Your task to perform on an android device: When is my next meeting? Image 0: 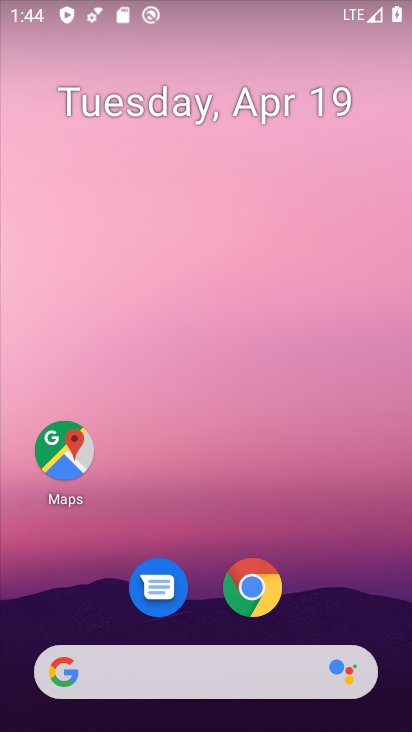
Step 0: drag from (350, 675) to (250, 237)
Your task to perform on an android device: When is my next meeting? Image 1: 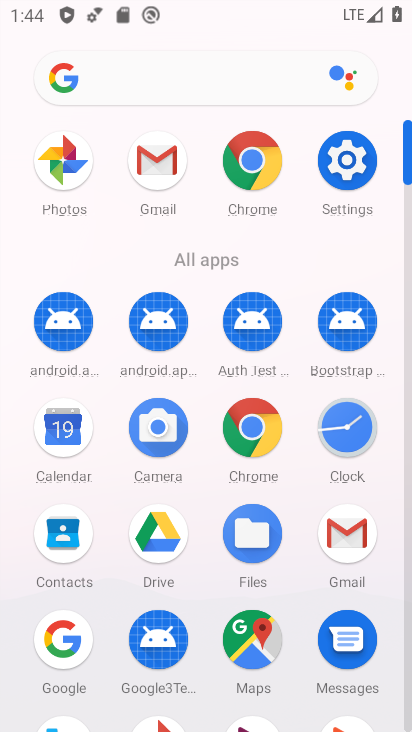
Step 1: click (57, 434)
Your task to perform on an android device: When is my next meeting? Image 2: 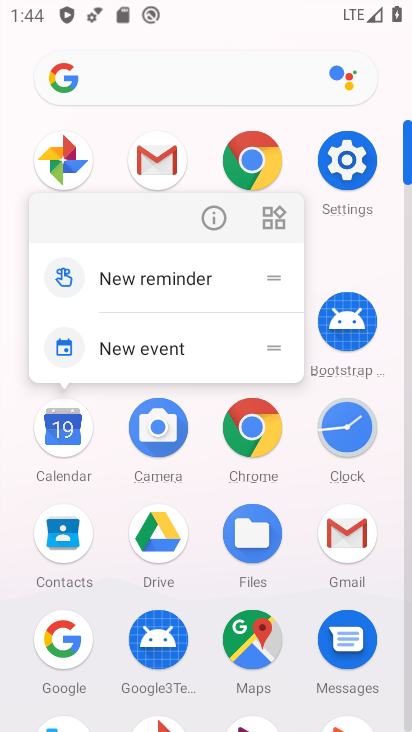
Step 2: click (60, 433)
Your task to perform on an android device: When is my next meeting? Image 3: 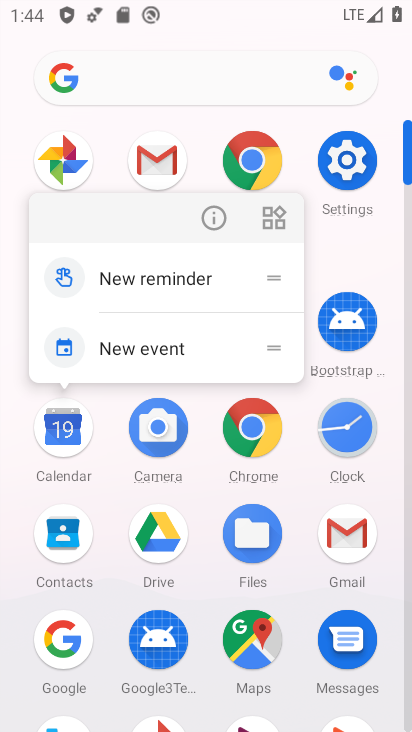
Step 3: click (58, 440)
Your task to perform on an android device: When is my next meeting? Image 4: 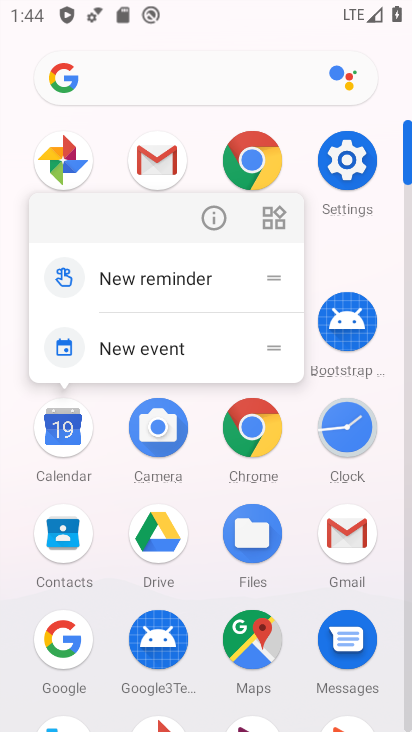
Step 4: click (54, 438)
Your task to perform on an android device: When is my next meeting? Image 5: 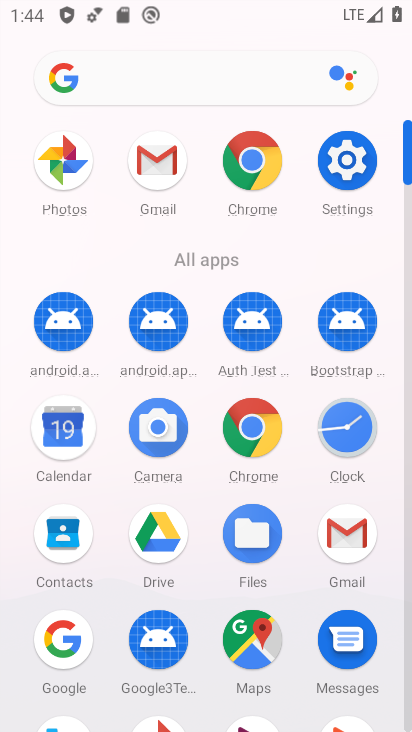
Step 5: click (56, 435)
Your task to perform on an android device: When is my next meeting? Image 6: 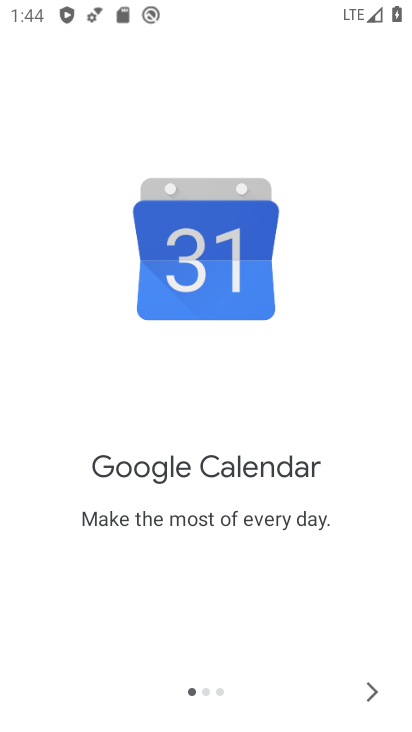
Step 6: click (367, 684)
Your task to perform on an android device: When is my next meeting? Image 7: 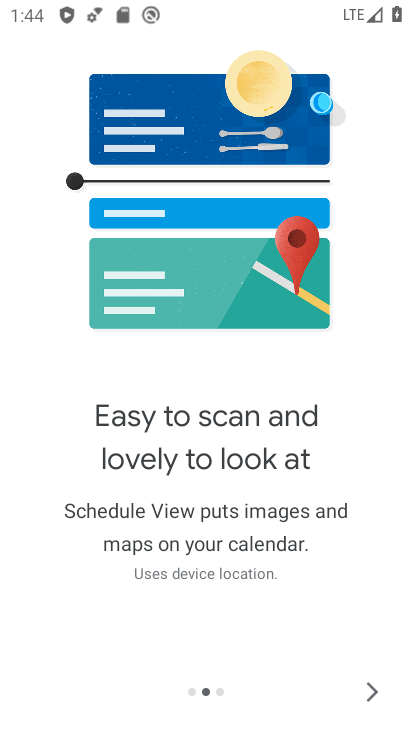
Step 7: click (366, 687)
Your task to perform on an android device: When is my next meeting? Image 8: 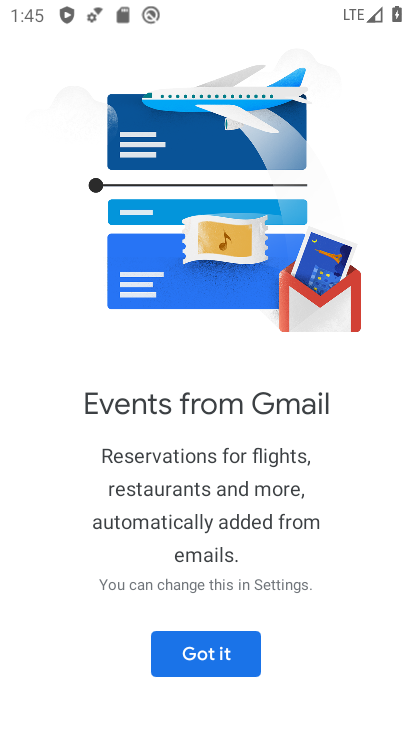
Step 8: click (194, 652)
Your task to perform on an android device: When is my next meeting? Image 9: 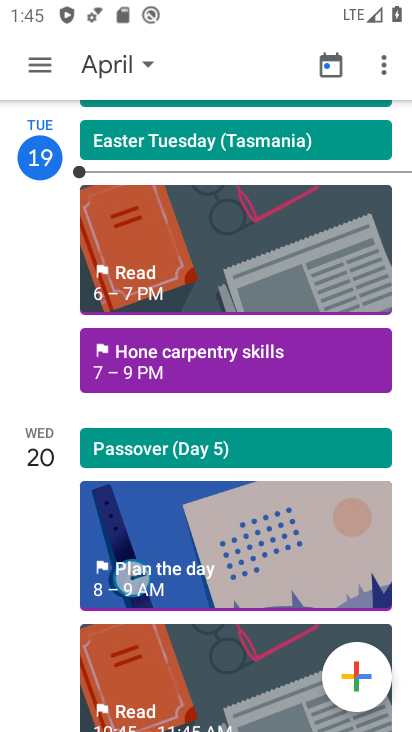
Step 9: click (35, 63)
Your task to perform on an android device: When is my next meeting? Image 10: 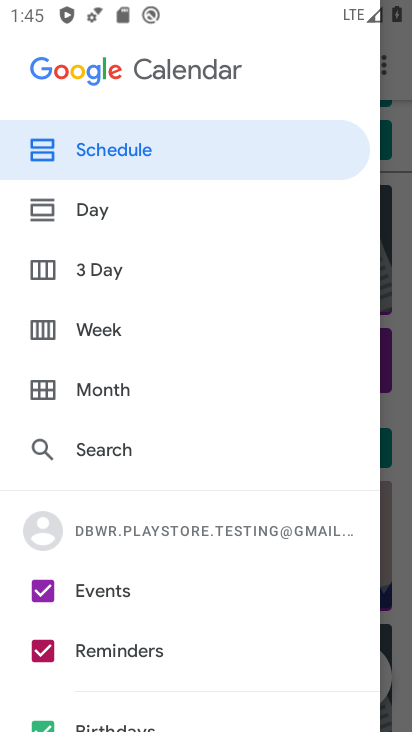
Step 10: click (186, 138)
Your task to perform on an android device: When is my next meeting? Image 11: 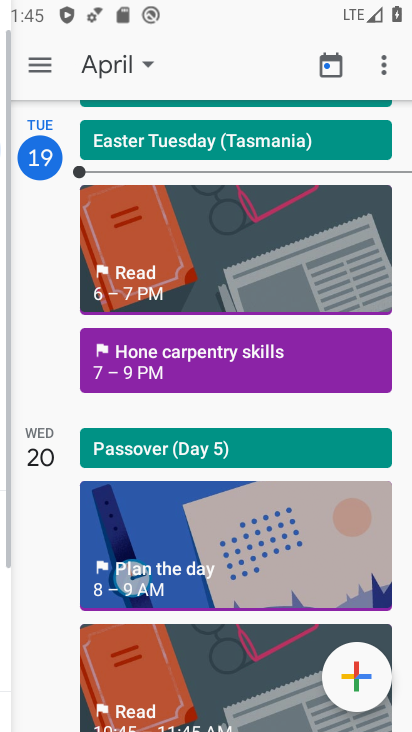
Step 11: drag from (172, 137) to (238, 233)
Your task to perform on an android device: When is my next meeting? Image 12: 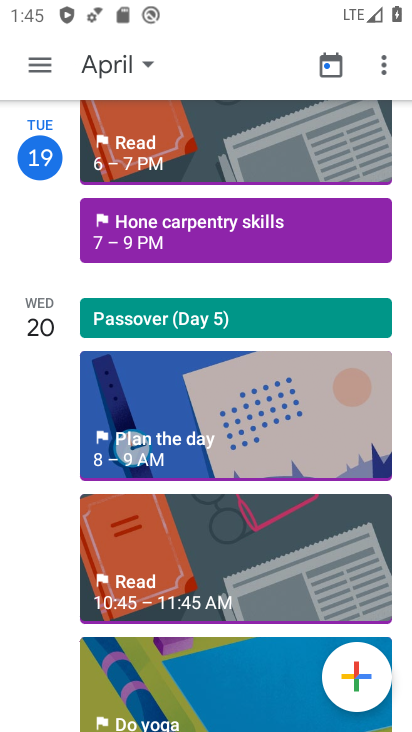
Step 12: drag from (231, 294) to (214, 235)
Your task to perform on an android device: When is my next meeting? Image 13: 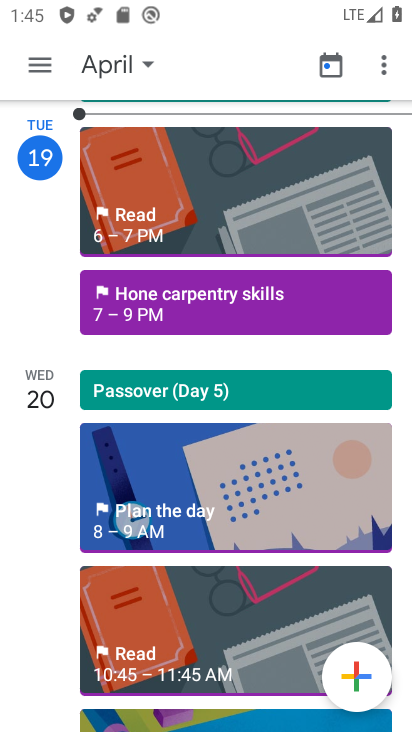
Step 13: drag from (185, 483) to (101, 199)
Your task to perform on an android device: When is my next meeting? Image 14: 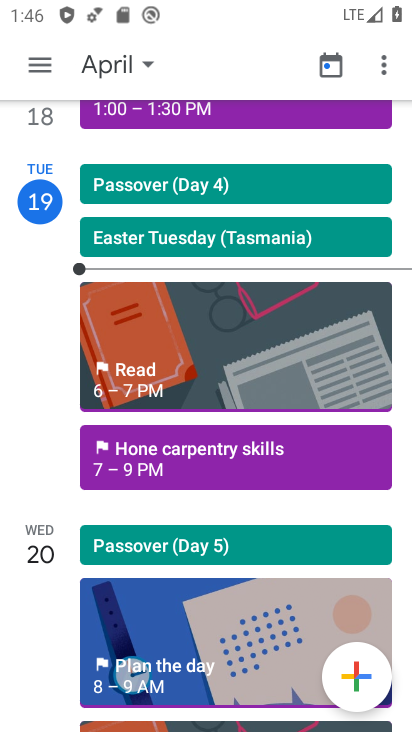
Step 14: drag from (180, 490) to (167, 201)
Your task to perform on an android device: When is my next meeting? Image 15: 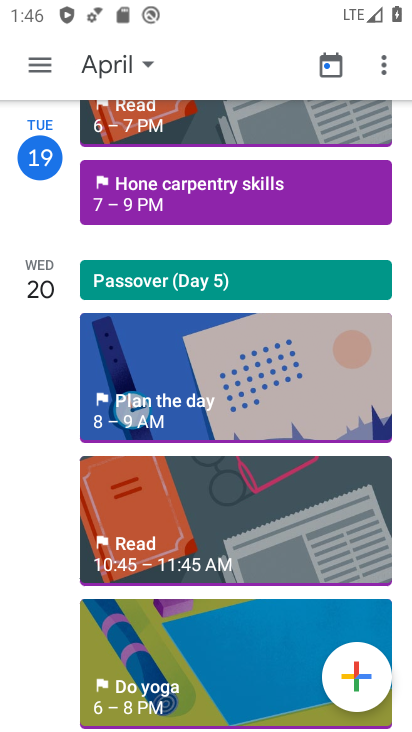
Step 15: drag from (252, 188) to (188, 219)
Your task to perform on an android device: When is my next meeting? Image 16: 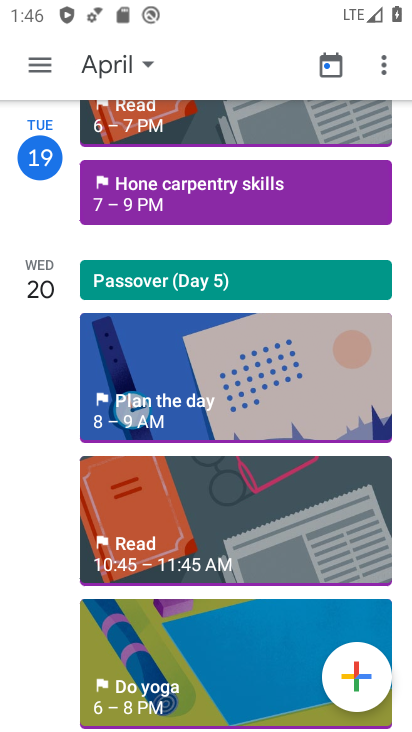
Step 16: drag from (230, 499) to (108, 197)
Your task to perform on an android device: When is my next meeting? Image 17: 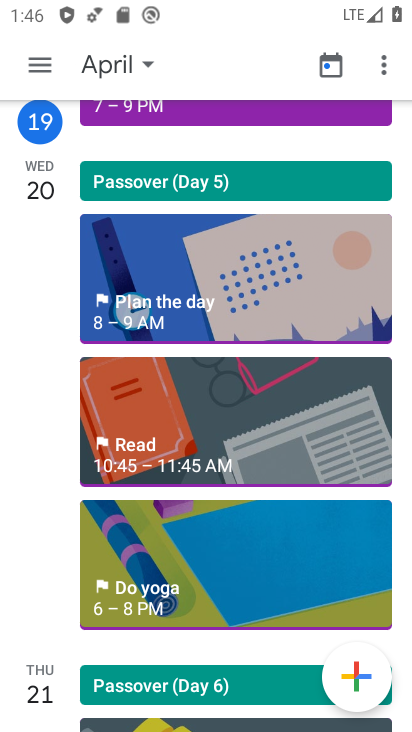
Step 17: drag from (230, 498) to (210, 146)
Your task to perform on an android device: When is my next meeting? Image 18: 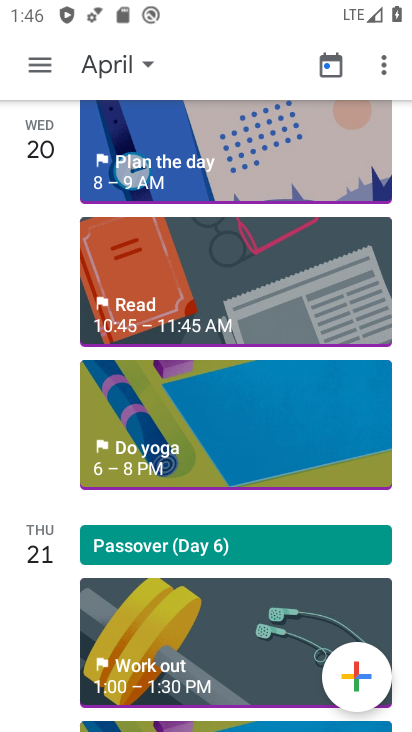
Step 18: drag from (256, 585) to (223, 194)
Your task to perform on an android device: When is my next meeting? Image 19: 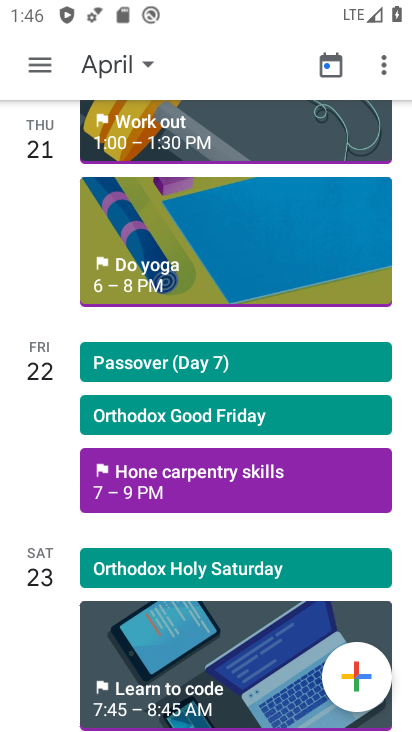
Step 19: drag from (230, 554) to (161, 243)
Your task to perform on an android device: When is my next meeting? Image 20: 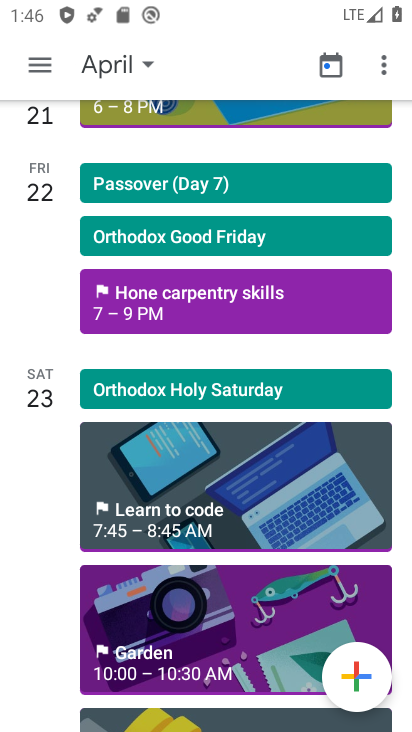
Step 20: click (57, 259)
Your task to perform on an android device: When is my next meeting? Image 21: 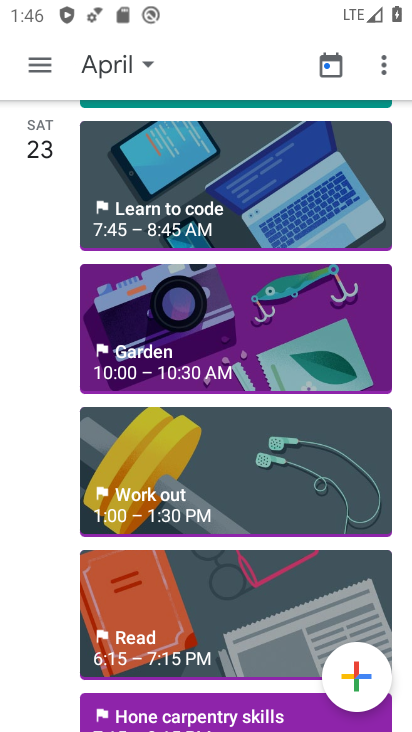
Step 21: click (192, 204)
Your task to perform on an android device: When is my next meeting? Image 22: 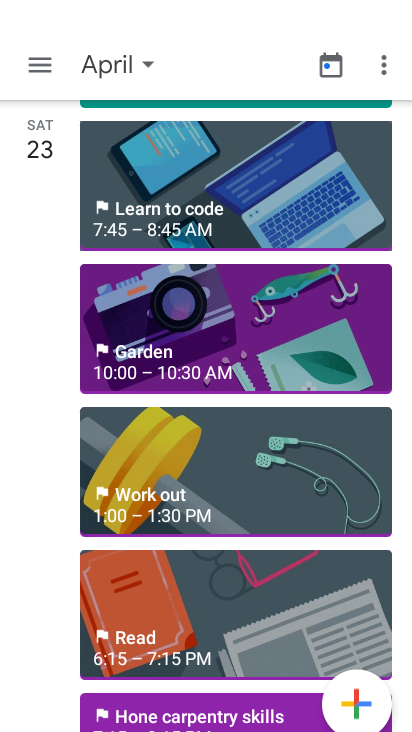
Step 22: drag from (169, 446) to (151, 391)
Your task to perform on an android device: When is my next meeting? Image 23: 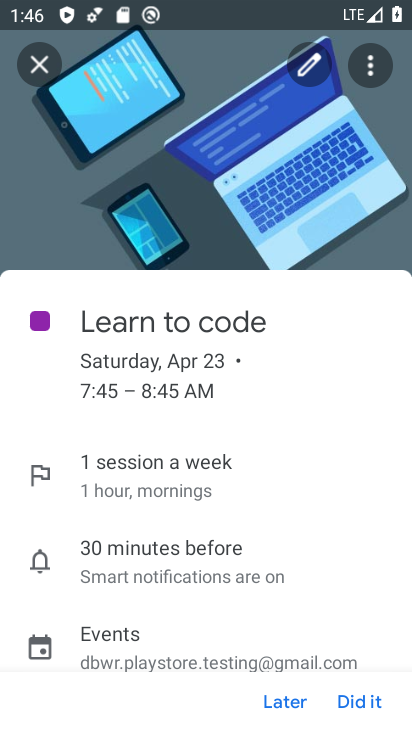
Step 23: click (353, 693)
Your task to perform on an android device: When is my next meeting? Image 24: 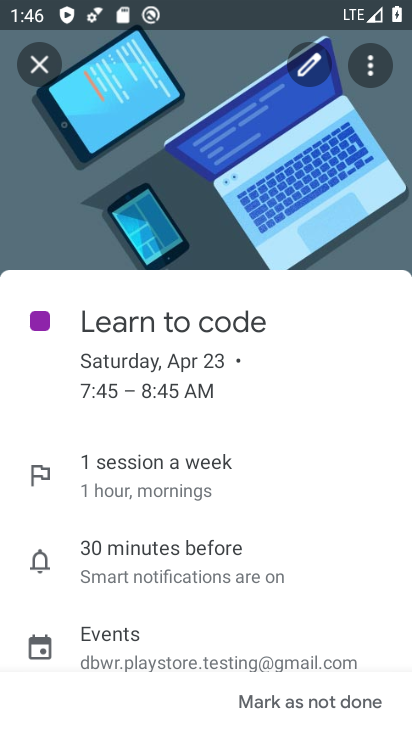
Step 24: click (36, 63)
Your task to perform on an android device: When is my next meeting? Image 25: 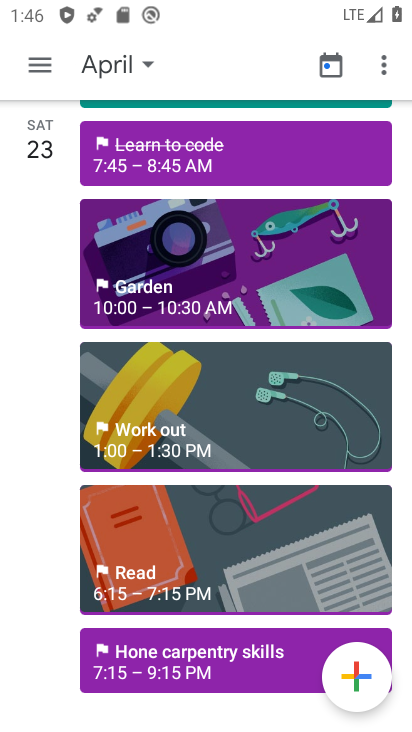
Step 25: click (42, 70)
Your task to perform on an android device: When is my next meeting? Image 26: 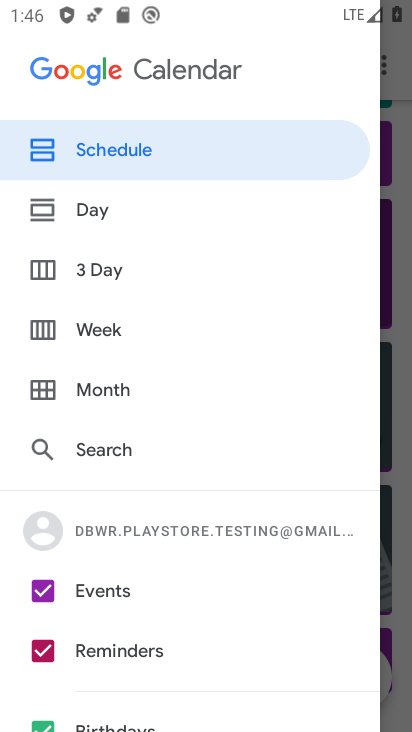
Step 26: click (82, 589)
Your task to perform on an android device: When is my next meeting? Image 27: 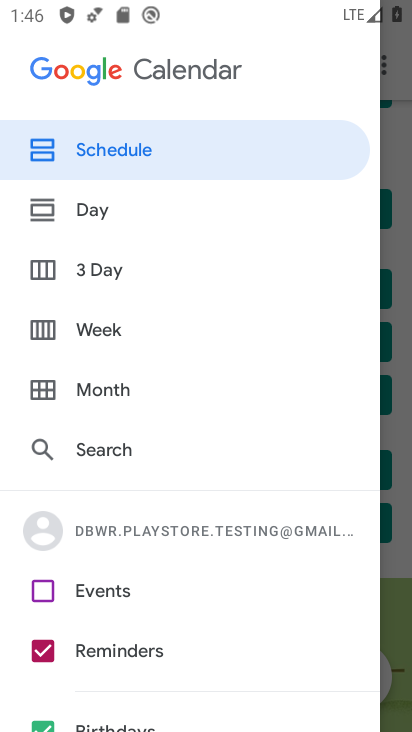
Step 27: click (43, 586)
Your task to perform on an android device: When is my next meeting? Image 28: 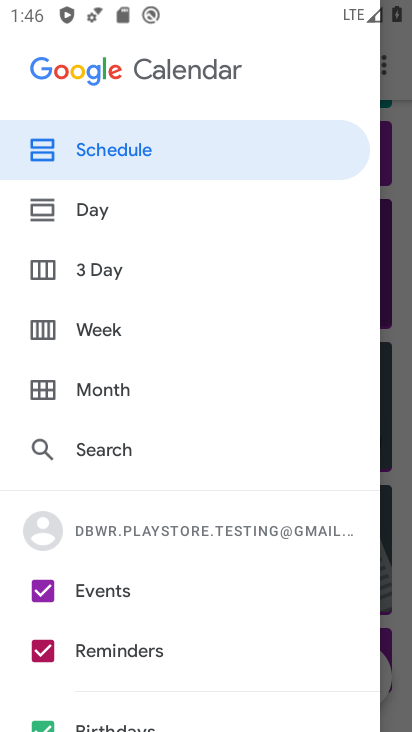
Step 28: drag from (225, 544) to (217, 97)
Your task to perform on an android device: When is my next meeting? Image 29: 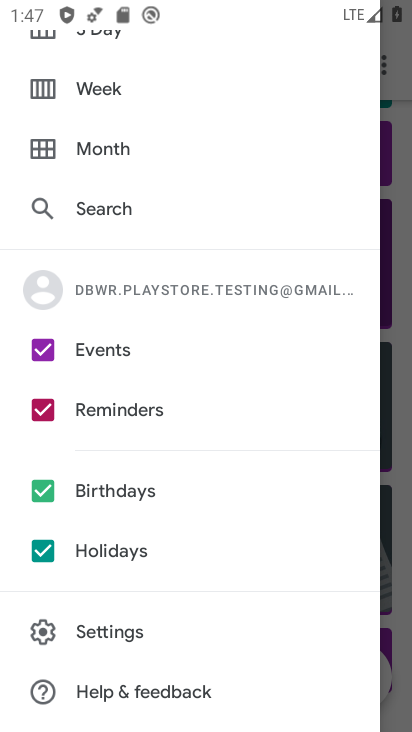
Step 29: click (398, 547)
Your task to perform on an android device: When is my next meeting? Image 30: 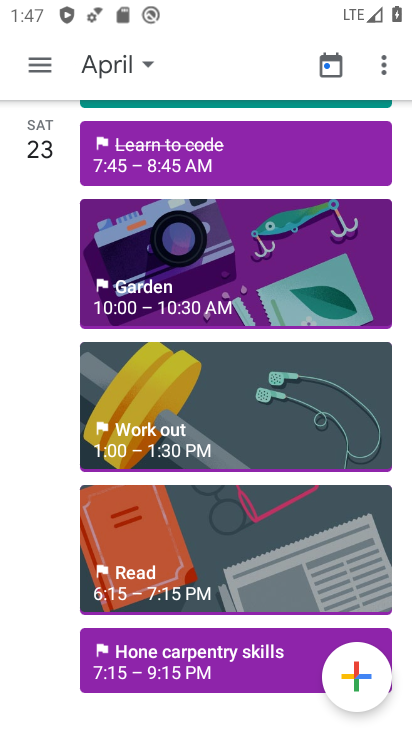
Step 30: click (398, 547)
Your task to perform on an android device: When is my next meeting? Image 31: 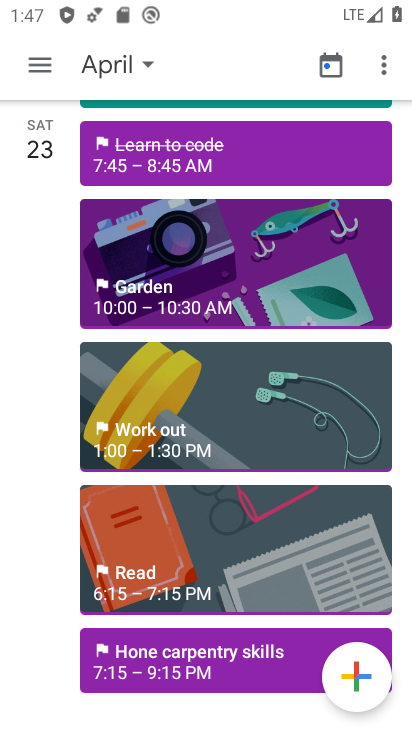
Step 31: task complete